Your task to perform on an android device: turn off location Image 0: 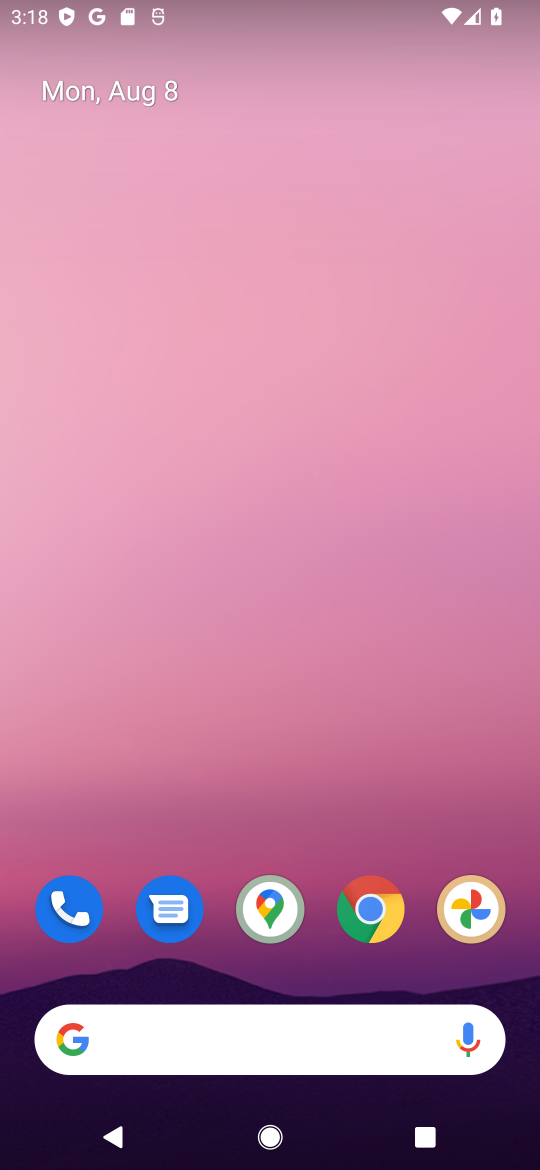
Step 0: drag from (230, 970) to (281, 451)
Your task to perform on an android device: turn off location Image 1: 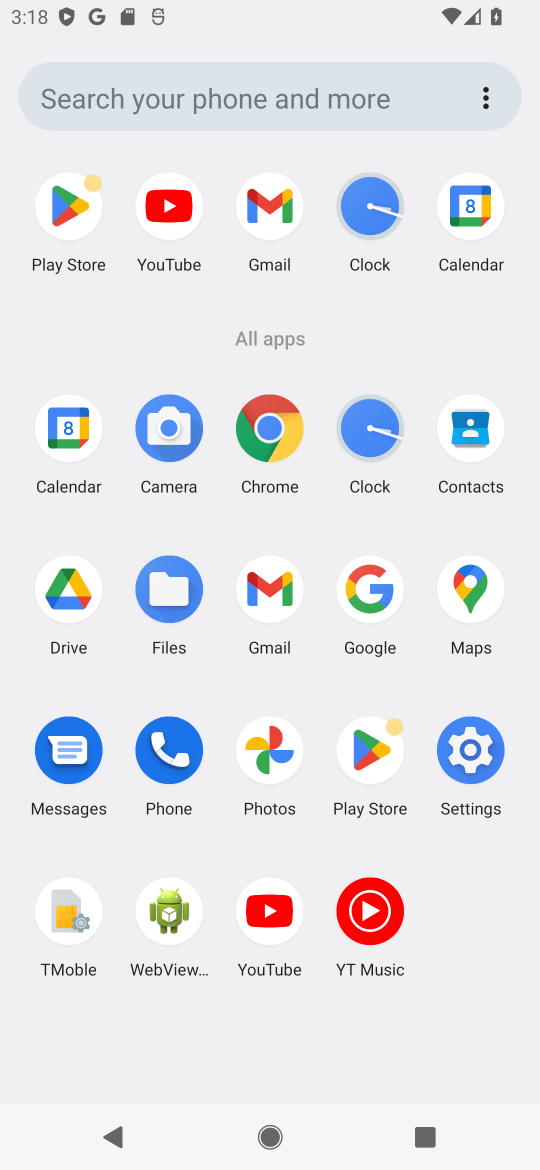
Step 1: click (459, 750)
Your task to perform on an android device: turn off location Image 2: 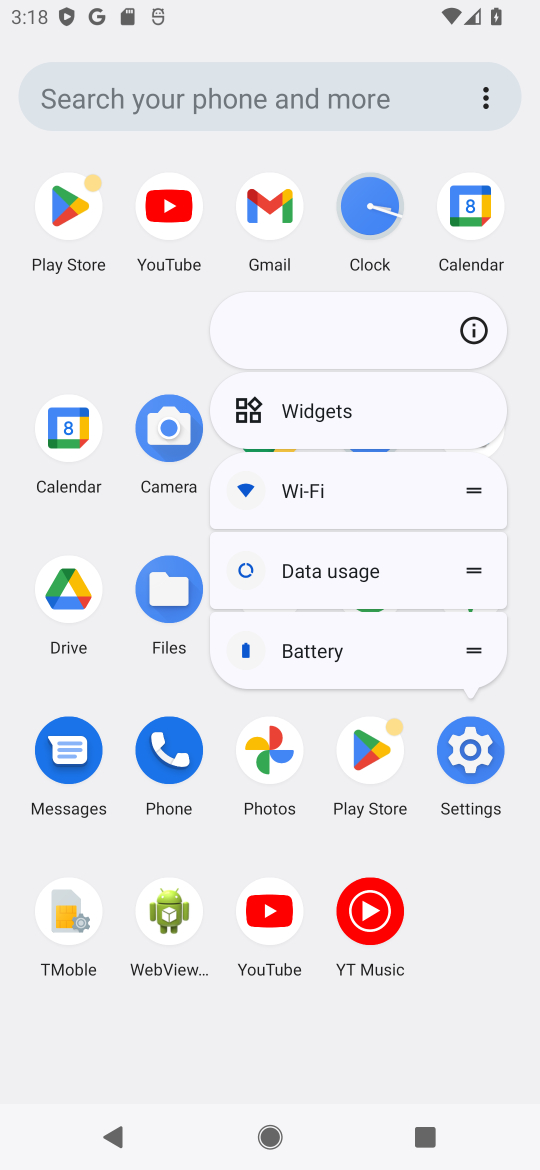
Step 2: click (459, 750)
Your task to perform on an android device: turn off location Image 3: 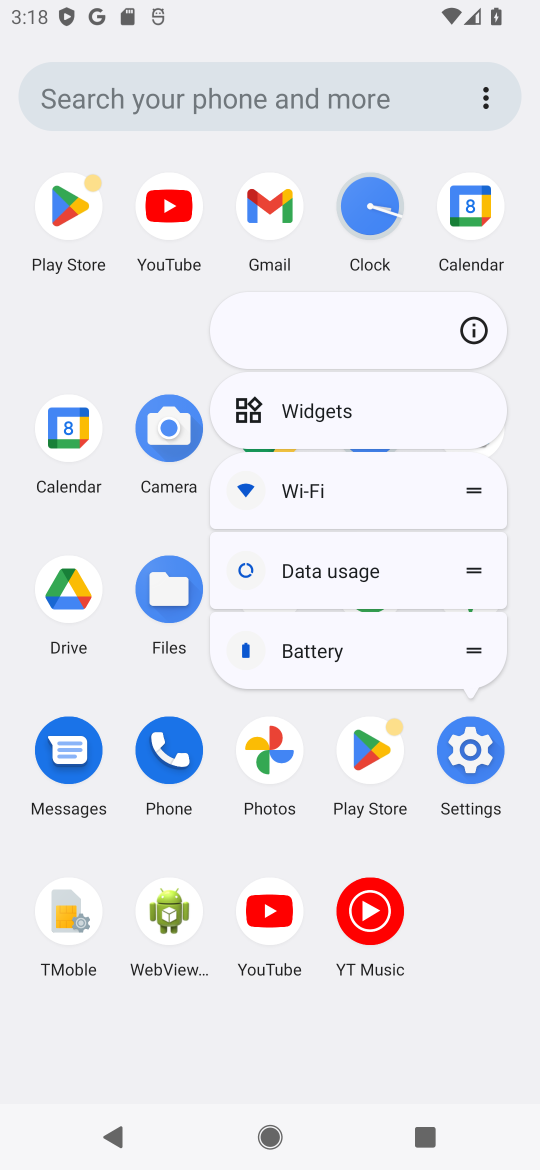
Step 3: click (488, 760)
Your task to perform on an android device: turn off location Image 4: 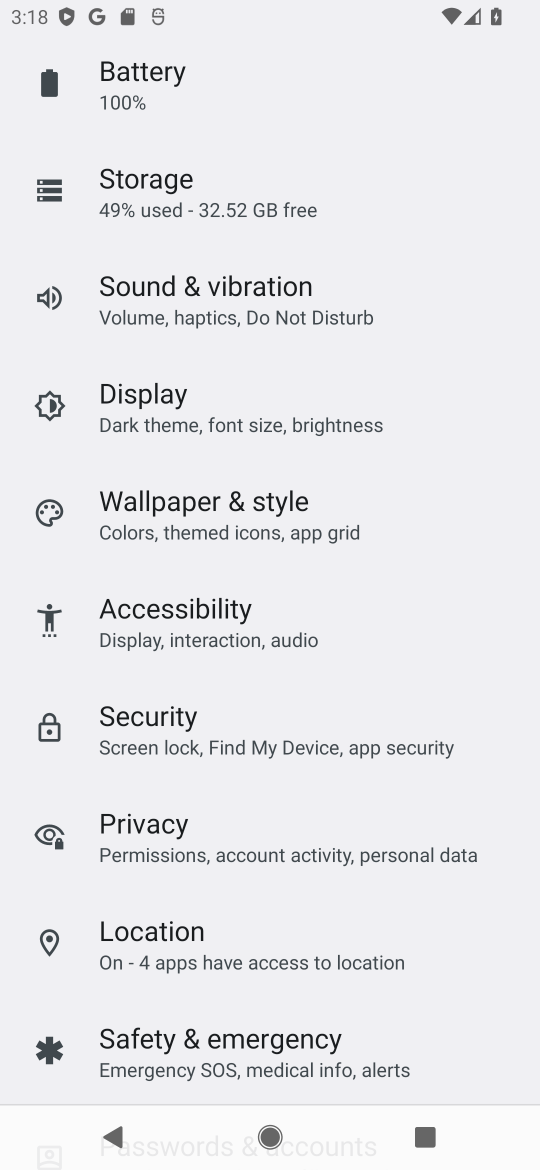
Step 4: click (151, 940)
Your task to perform on an android device: turn off location Image 5: 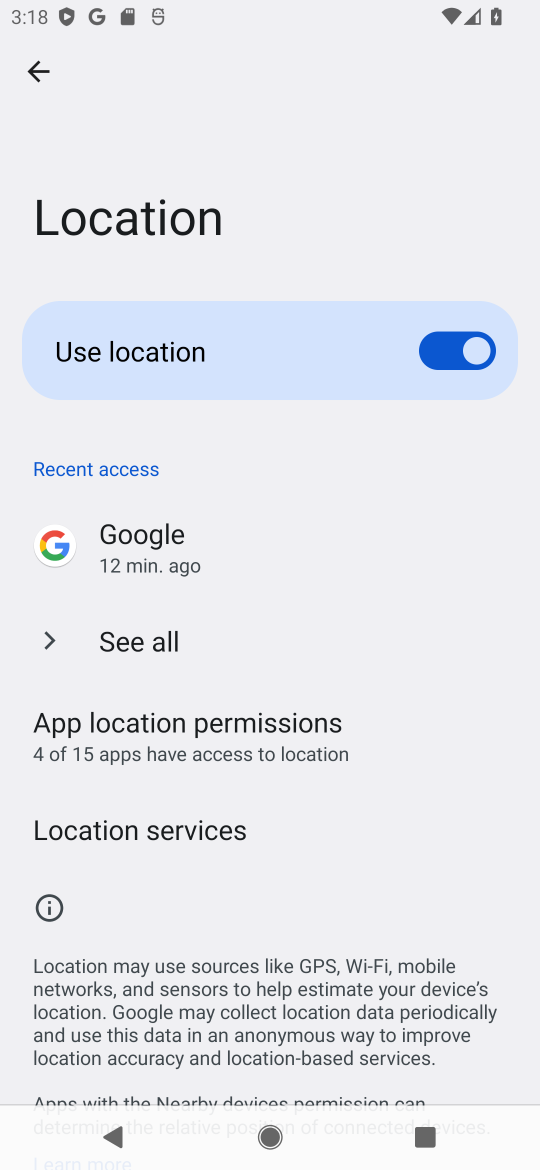
Step 5: click (450, 355)
Your task to perform on an android device: turn off location Image 6: 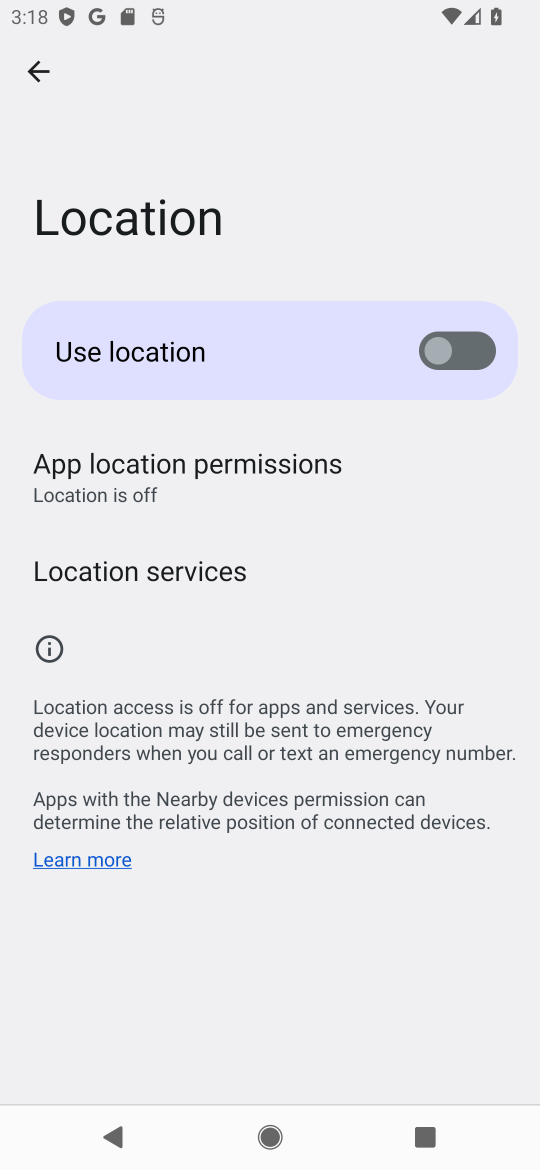
Step 6: task complete